Your task to perform on an android device: turn off smart reply in the gmail app Image 0: 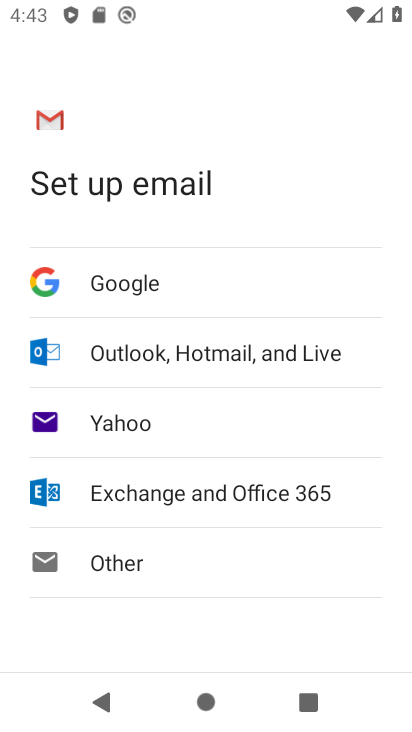
Step 0: press home button
Your task to perform on an android device: turn off smart reply in the gmail app Image 1: 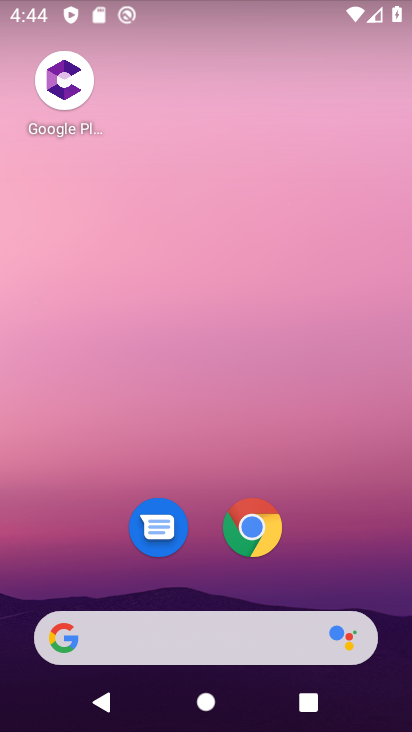
Step 1: drag from (311, 604) to (323, 0)
Your task to perform on an android device: turn off smart reply in the gmail app Image 2: 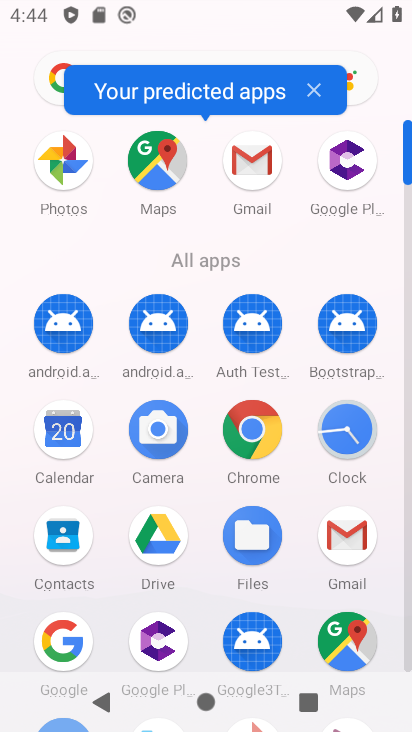
Step 2: click (254, 159)
Your task to perform on an android device: turn off smart reply in the gmail app Image 3: 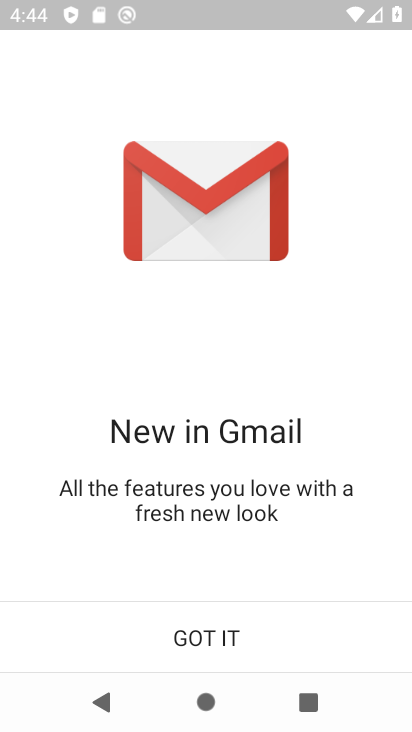
Step 3: click (197, 635)
Your task to perform on an android device: turn off smart reply in the gmail app Image 4: 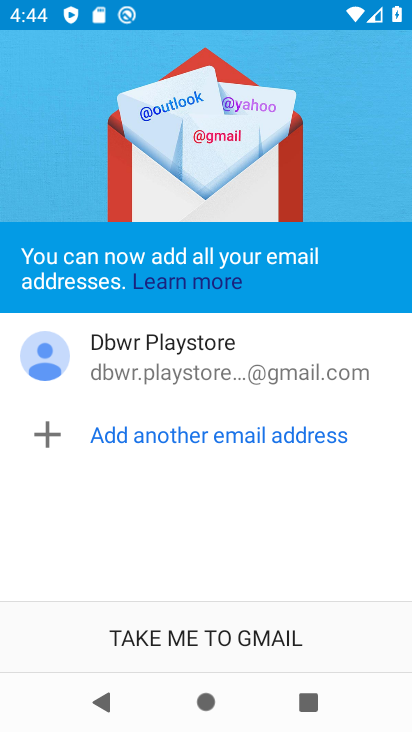
Step 4: click (216, 644)
Your task to perform on an android device: turn off smart reply in the gmail app Image 5: 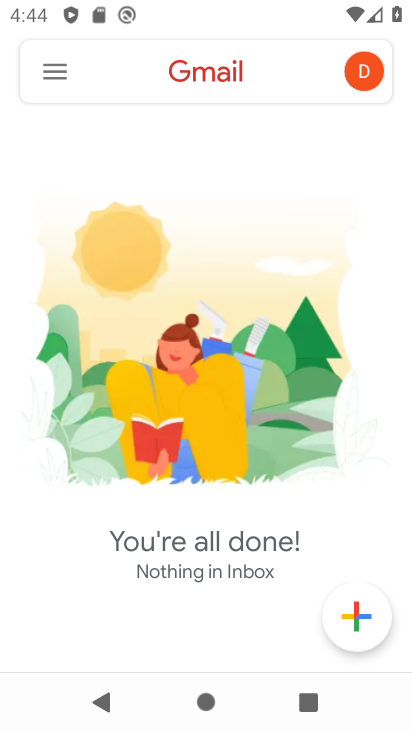
Step 5: click (48, 71)
Your task to perform on an android device: turn off smart reply in the gmail app Image 6: 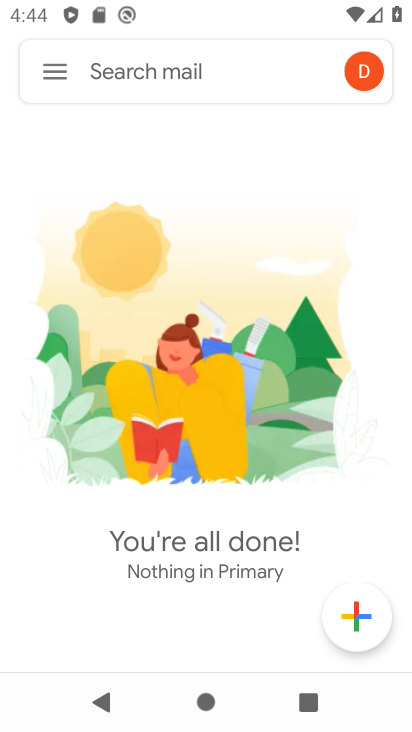
Step 6: click (56, 66)
Your task to perform on an android device: turn off smart reply in the gmail app Image 7: 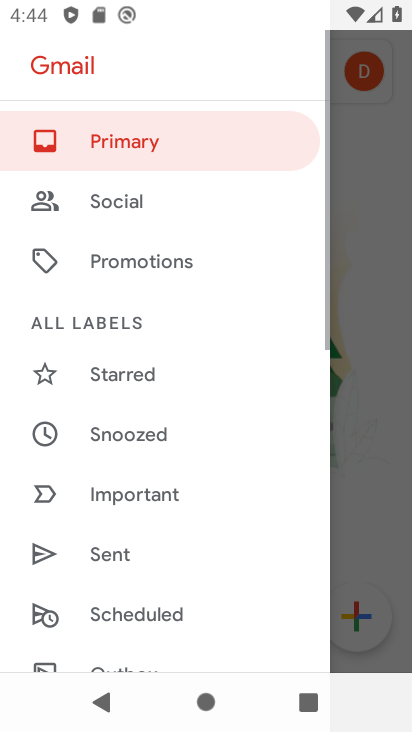
Step 7: drag from (172, 588) to (183, 29)
Your task to perform on an android device: turn off smart reply in the gmail app Image 8: 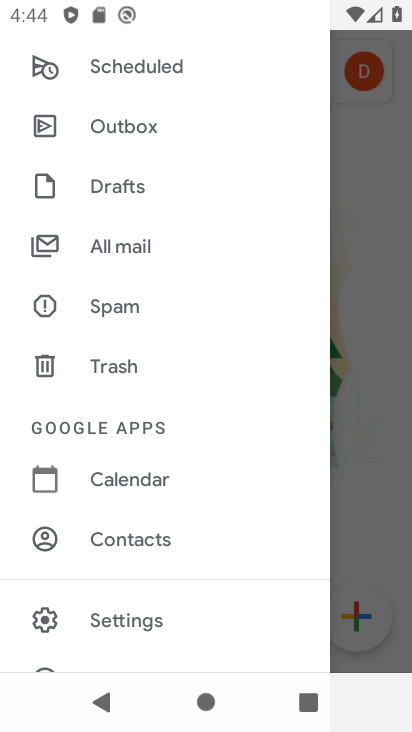
Step 8: click (141, 622)
Your task to perform on an android device: turn off smart reply in the gmail app Image 9: 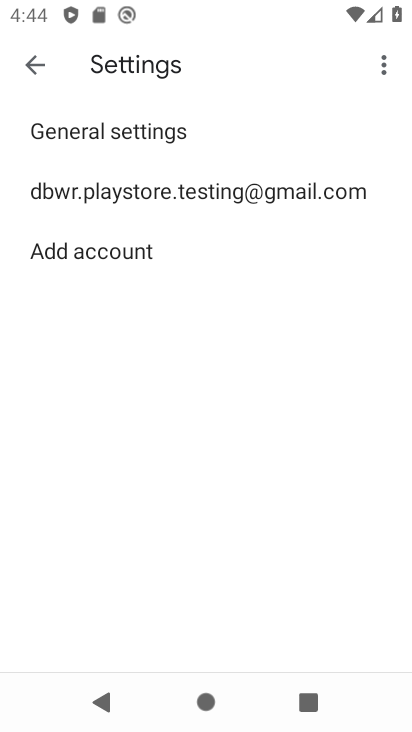
Step 9: click (304, 192)
Your task to perform on an android device: turn off smart reply in the gmail app Image 10: 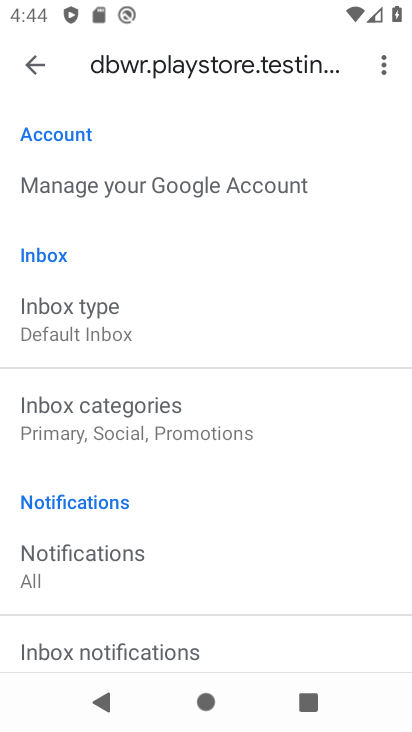
Step 10: drag from (232, 631) to (200, 145)
Your task to perform on an android device: turn off smart reply in the gmail app Image 11: 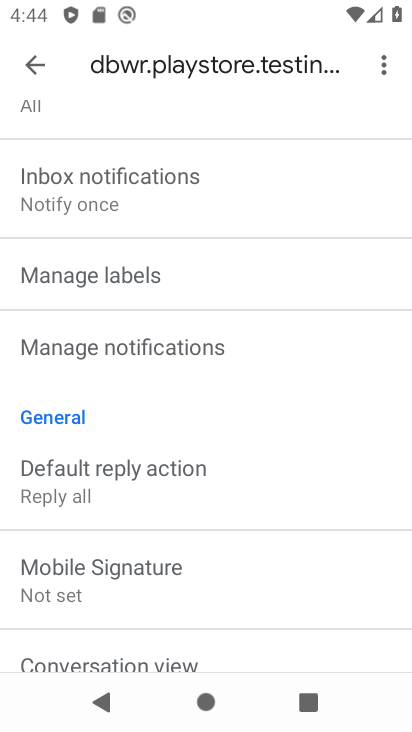
Step 11: drag from (228, 596) to (281, 268)
Your task to perform on an android device: turn off smart reply in the gmail app Image 12: 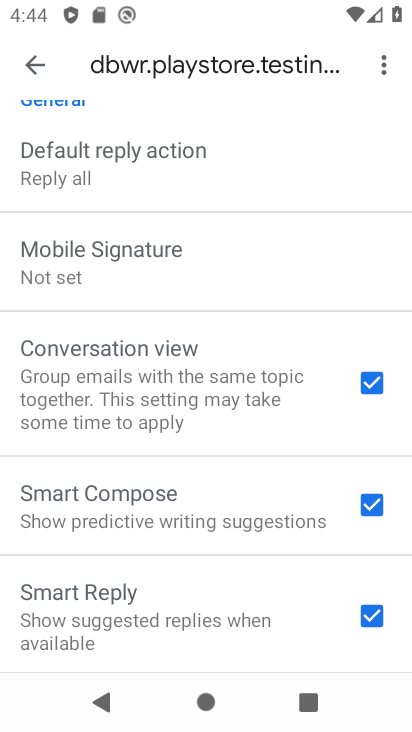
Step 12: click (370, 617)
Your task to perform on an android device: turn off smart reply in the gmail app Image 13: 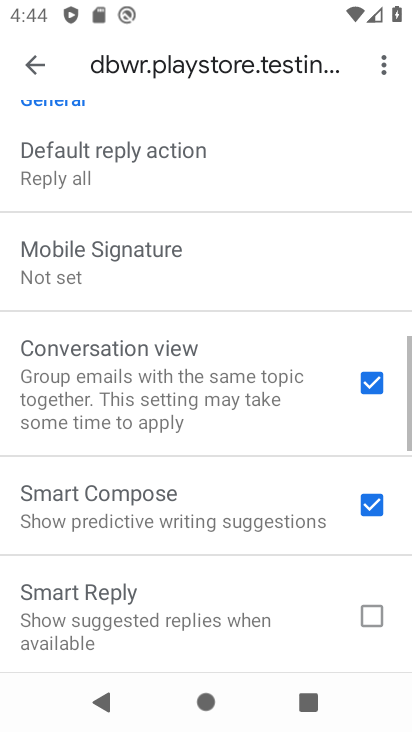
Step 13: task complete